Your task to perform on an android device: What's the weather today? Image 0: 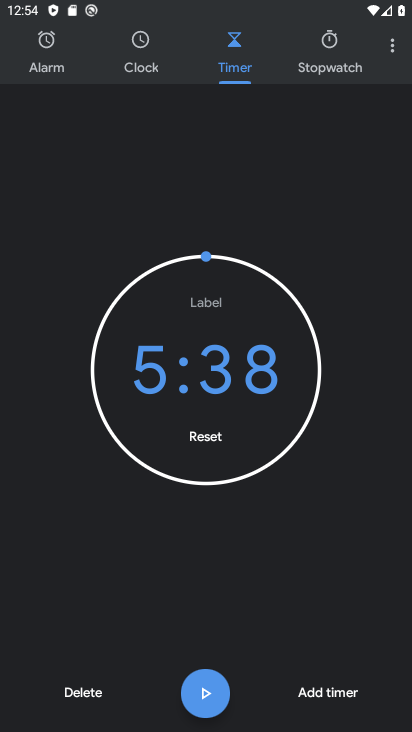
Step 0: press home button
Your task to perform on an android device: What's the weather today? Image 1: 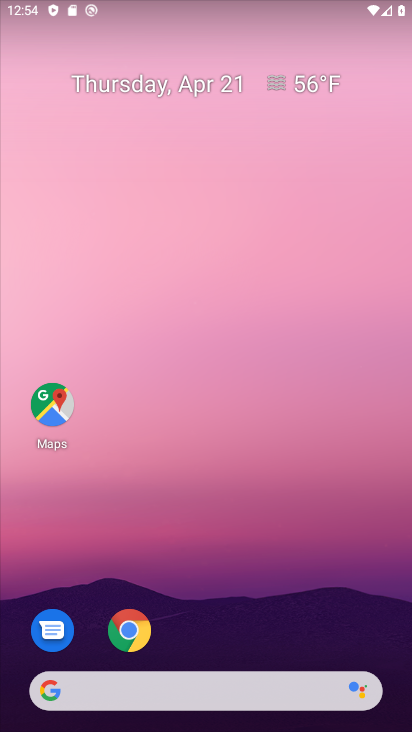
Step 1: click (287, 85)
Your task to perform on an android device: What's the weather today? Image 2: 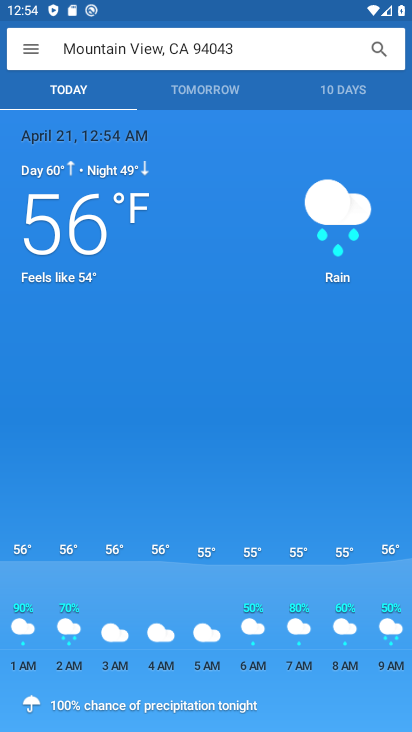
Step 2: task complete